Your task to perform on an android device: check data usage Image 0: 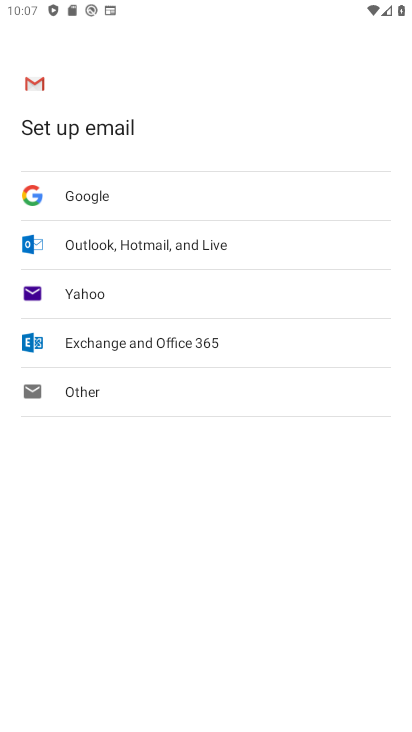
Step 0: press back button
Your task to perform on an android device: check data usage Image 1: 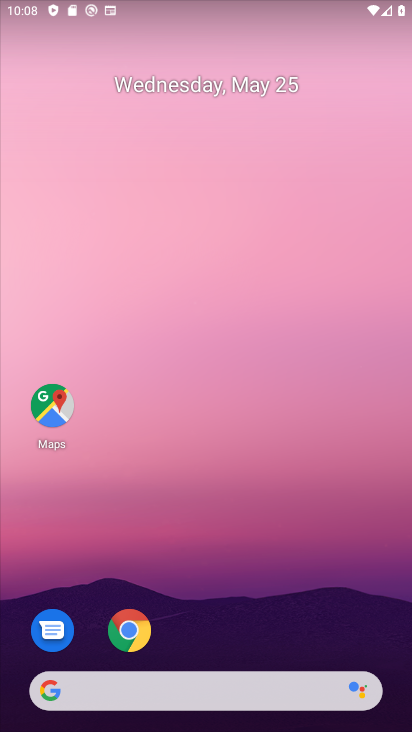
Step 1: drag from (386, 561) to (344, 171)
Your task to perform on an android device: check data usage Image 2: 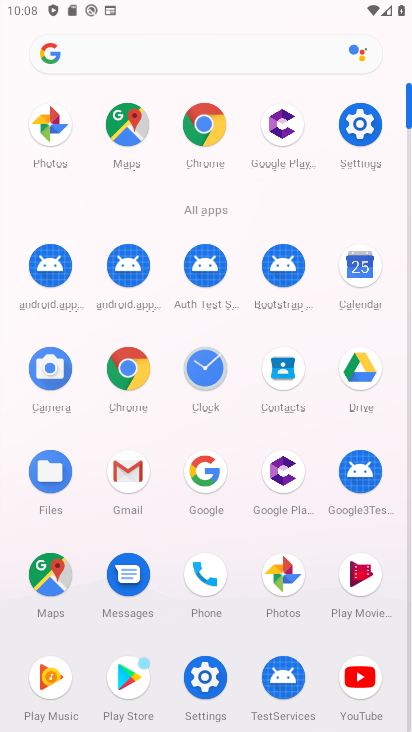
Step 2: click (352, 118)
Your task to perform on an android device: check data usage Image 3: 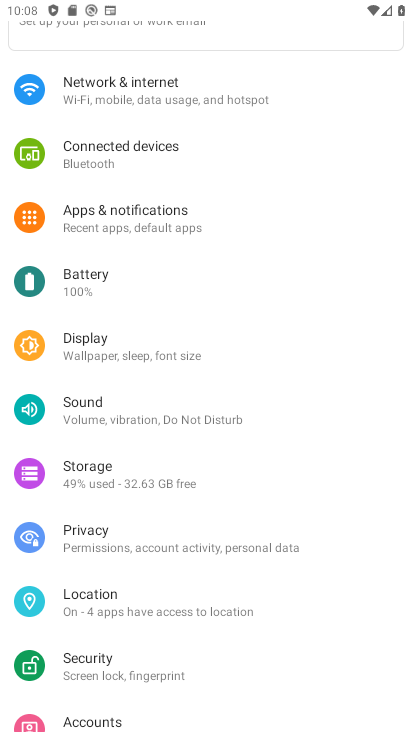
Step 3: drag from (314, 107) to (336, 521)
Your task to perform on an android device: check data usage Image 4: 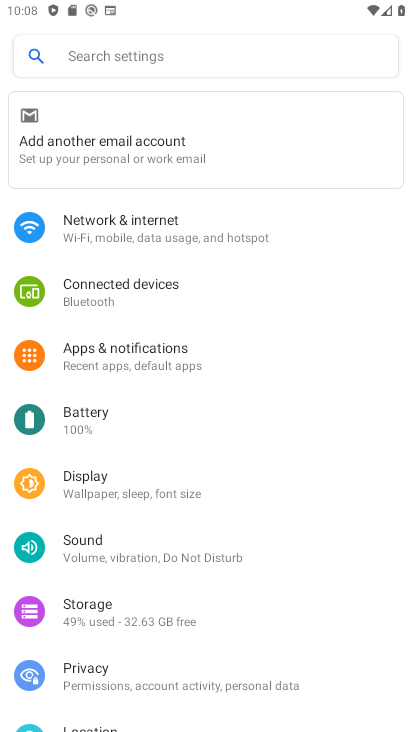
Step 4: click (163, 223)
Your task to perform on an android device: check data usage Image 5: 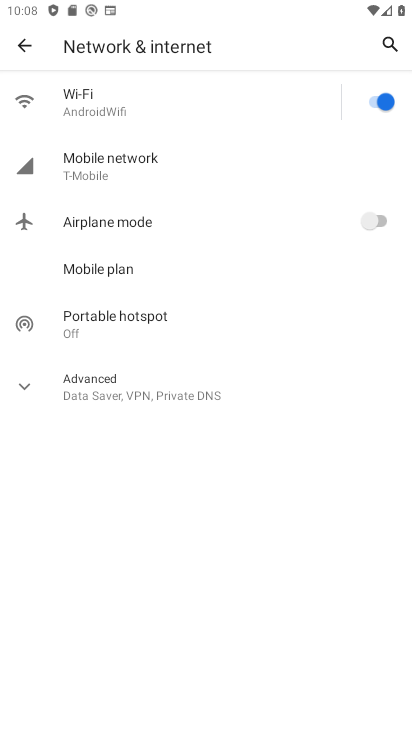
Step 5: click (87, 165)
Your task to perform on an android device: check data usage Image 6: 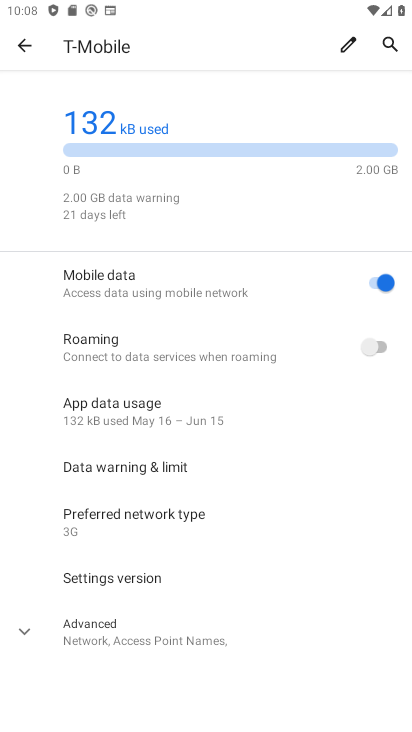
Step 6: task complete